Your task to perform on an android device: Open eBay Image 0: 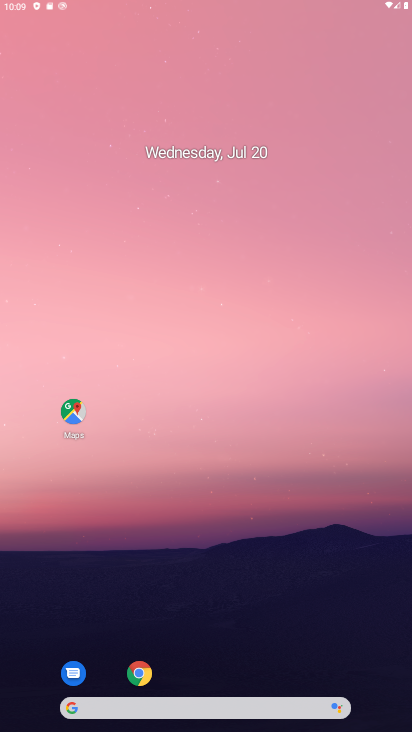
Step 0: drag from (281, 588) to (263, 92)
Your task to perform on an android device: Open eBay Image 1: 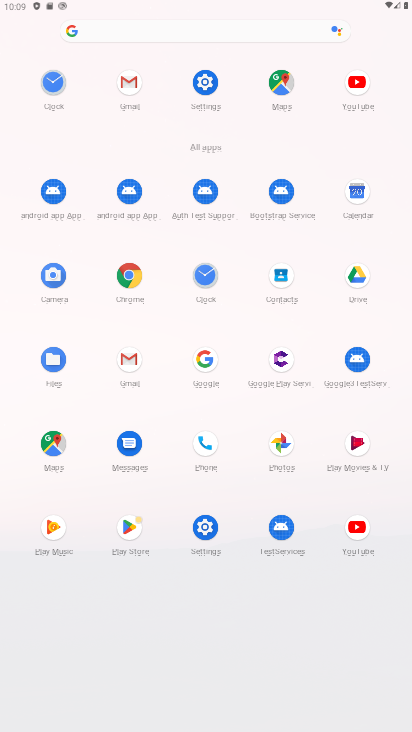
Step 1: click (136, 279)
Your task to perform on an android device: Open eBay Image 2: 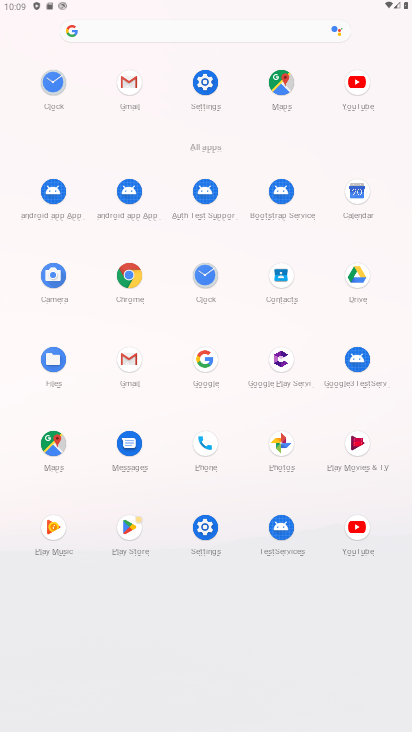
Step 2: click (134, 282)
Your task to perform on an android device: Open eBay Image 3: 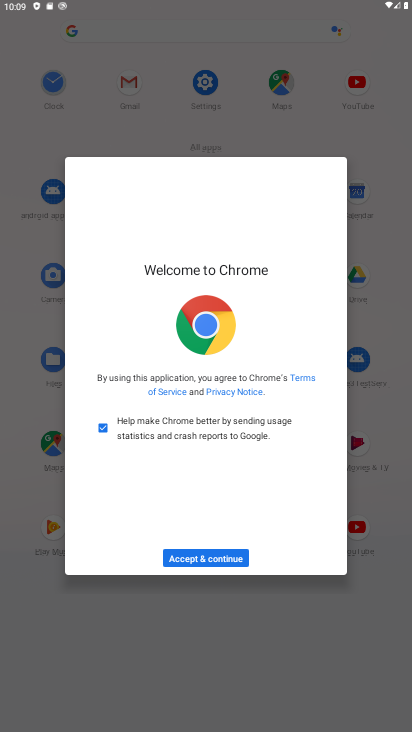
Step 3: click (194, 573)
Your task to perform on an android device: Open eBay Image 4: 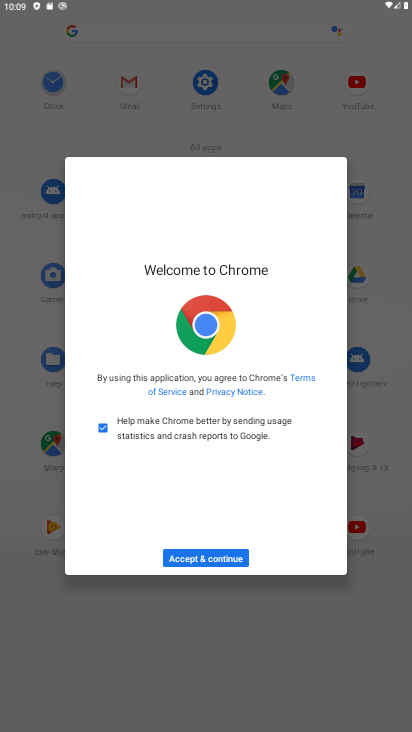
Step 4: click (216, 553)
Your task to perform on an android device: Open eBay Image 5: 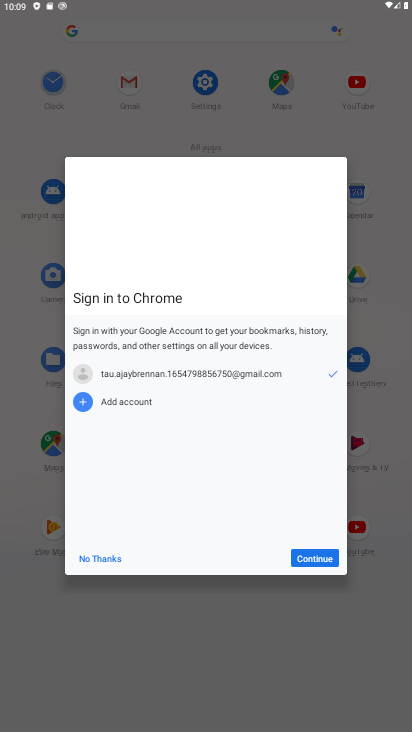
Step 5: click (106, 552)
Your task to perform on an android device: Open eBay Image 6: 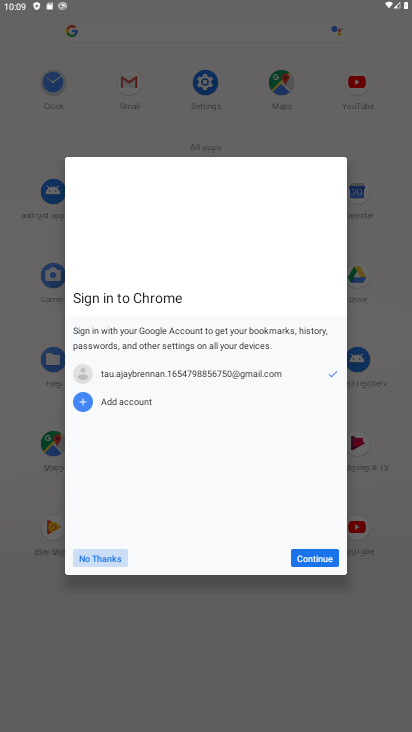
Step 6: click (104, 553)
Your task to perform on an android device: Open eBay Image 7: 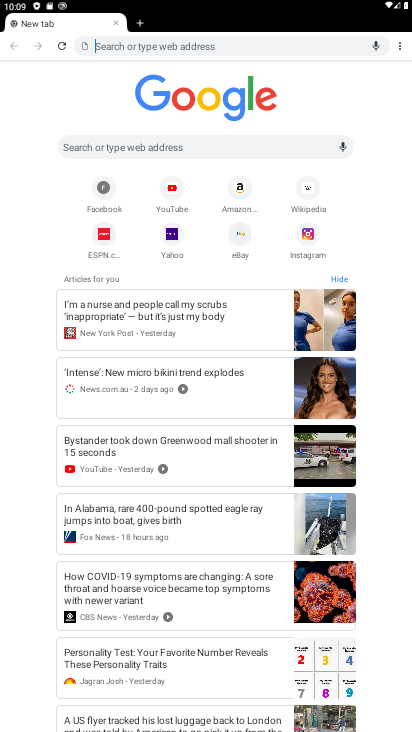
Step 7: click (239, 236)
Your task to perform on an android device: Open eBay Image 8: 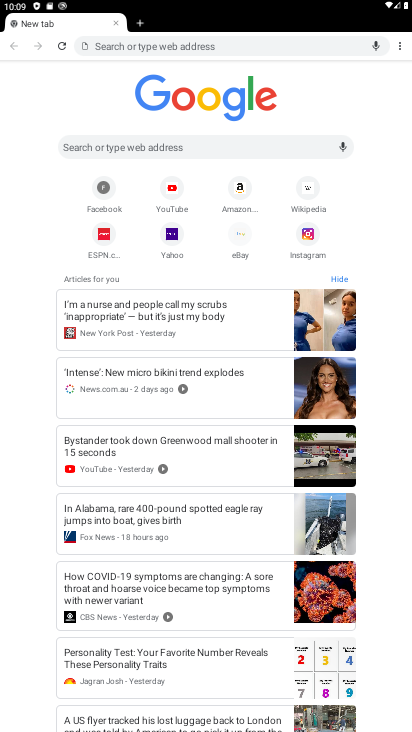
Step 8: click (239, 234)
Your task to perform on an android device: Open eBay Image 9: 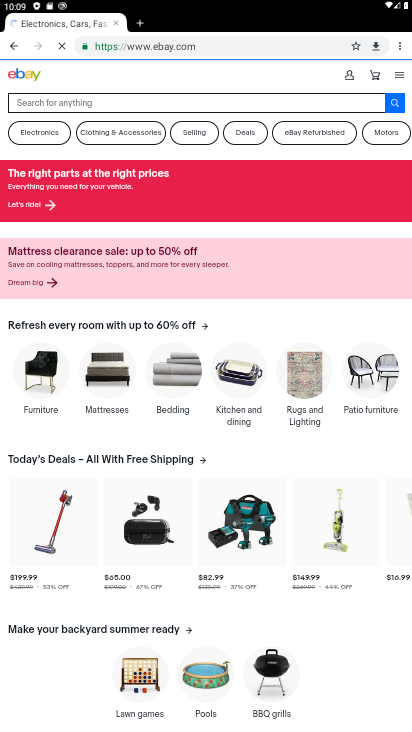
Step 9: task complete